Your task to perform on an android device: stop showing notifications on the lock screen Image 0: 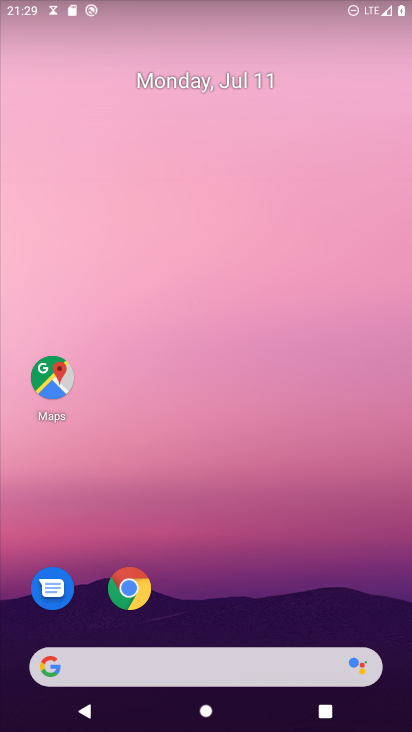
Step 0: press home button
Your task to perform on an android device: stop showing notifications on the lock screen Image 1: 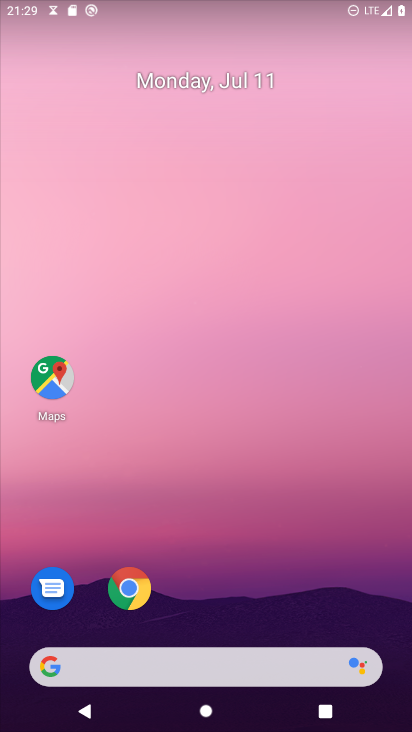
Step 1: drag from (217, 438) to (263, 0)
Your task to perform on an android device: stop showing notifications on the lock screen Image 2: 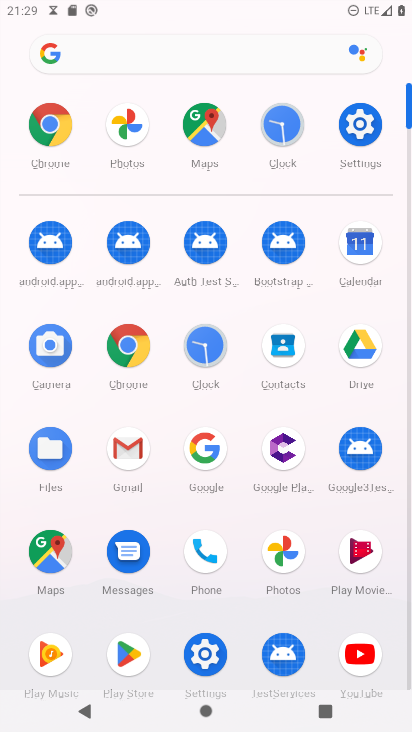
Step 2: click (359, 134)
Your task to perform on an android device: stop showing notifications on the lock screen Image 3: 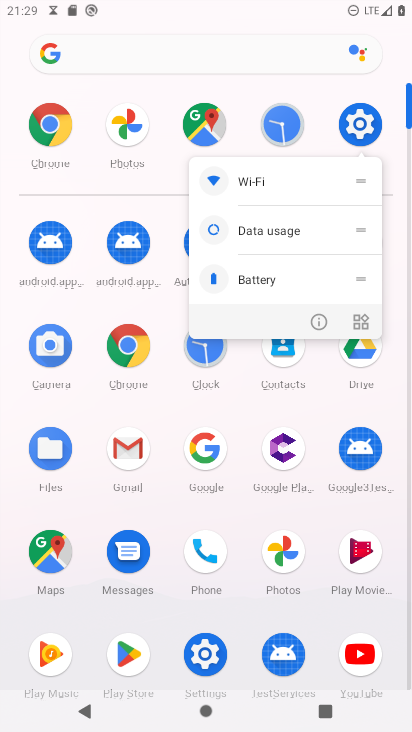
Step 3: click (359, 147)
Your task to perform on an android device: stop showing notifications on the lock screen Image 4: 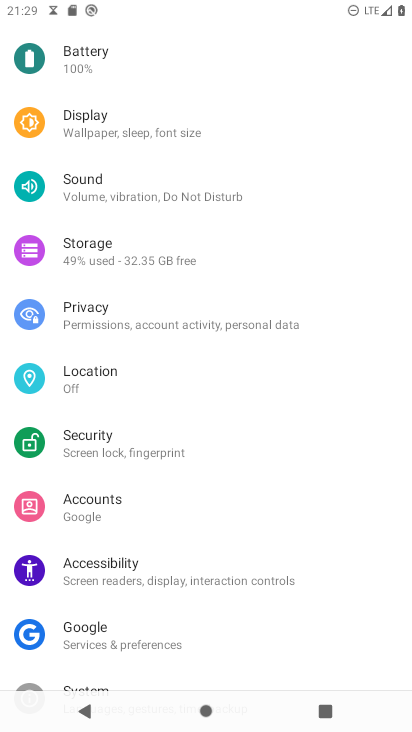
Step 4: drag from (241, 98) to (261, 486)
Your task to perform on an android device: stop showing notifications on the lock screen Image 5: 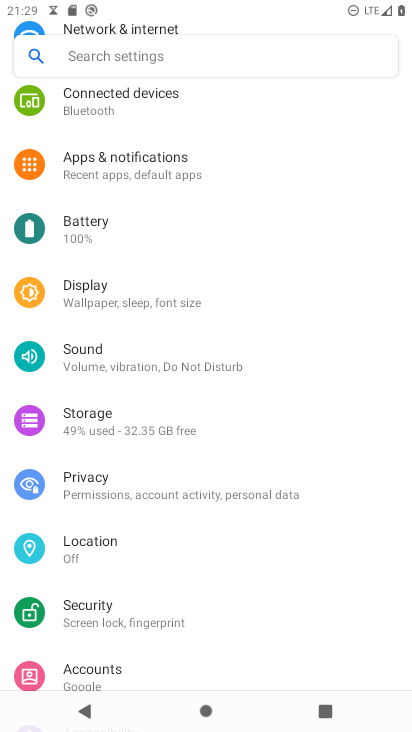
Step 5: click (127, 172)
Your task to perform on an android device: stop showing notifications on the lock screen Image 6: 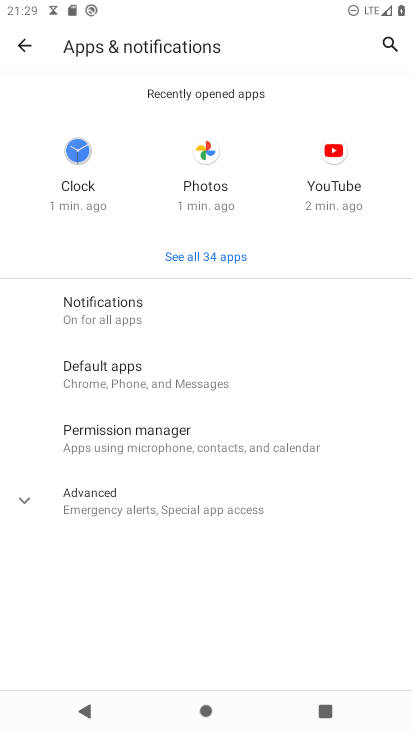
Step 6: click (110, 316)
Your task to perform on an android device: stop showing notifications on the lock screen Image 7: 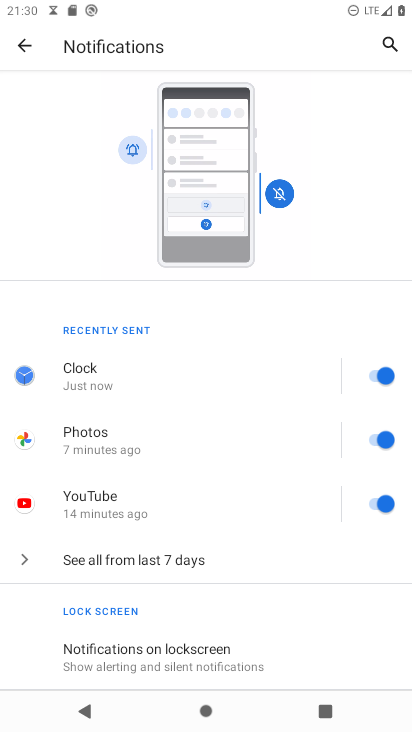
Step 7: click (154, 660)
Your task to perform on an android device: stop showing notifications on the lock screen Image 8: 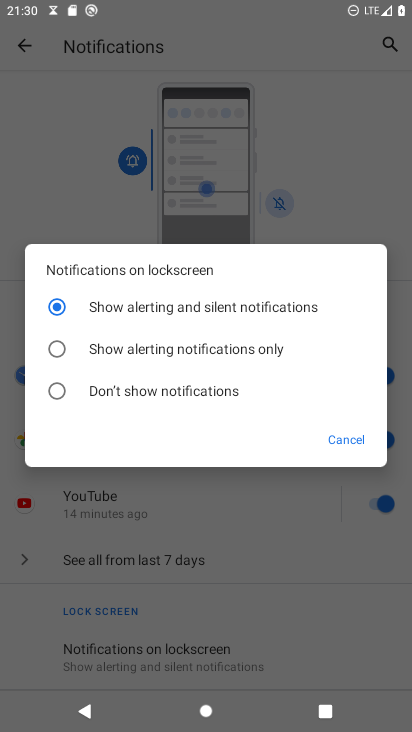
Step 8: click (52, 393)
Your task to perform on an android device: stop showing notifications on the lock screen Image 9: 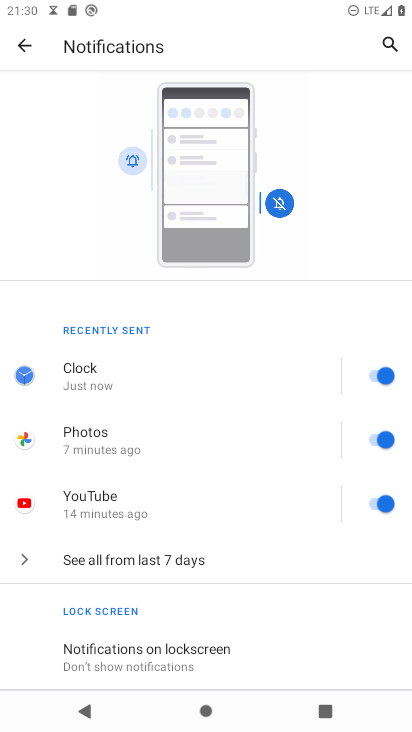
Step 9: task complete